Your task to perform on an android device: Go to location settings Image 0: 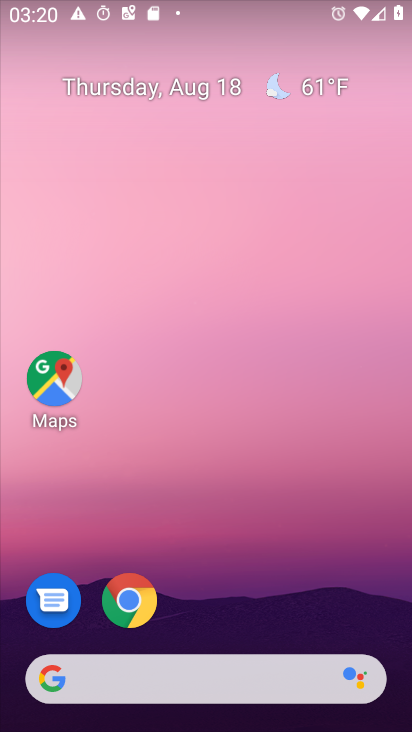
Step 0: press home button
Your task to perform on an android device: Go to location settings Image 1: 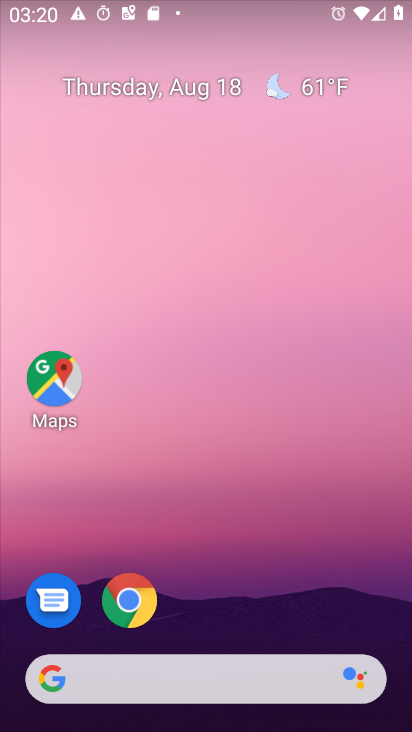
Step 1: drag from (241, 606) to (275, 49)
Your task to perform on an android device: Go to location settings Image 2: 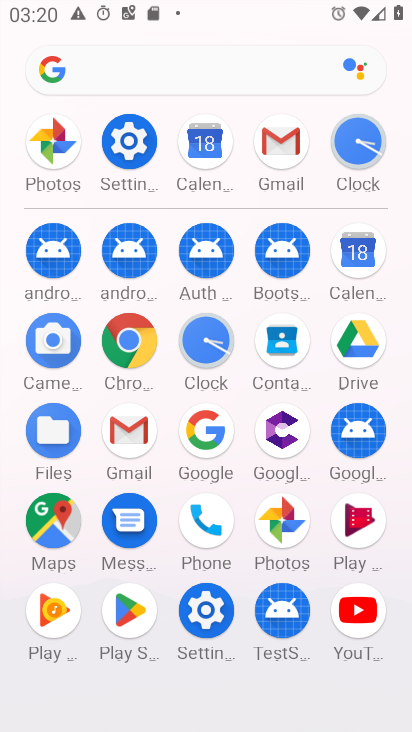
Step 2: click (160, 153)
Your task to perform on an android device: Go to location settings Image 3: 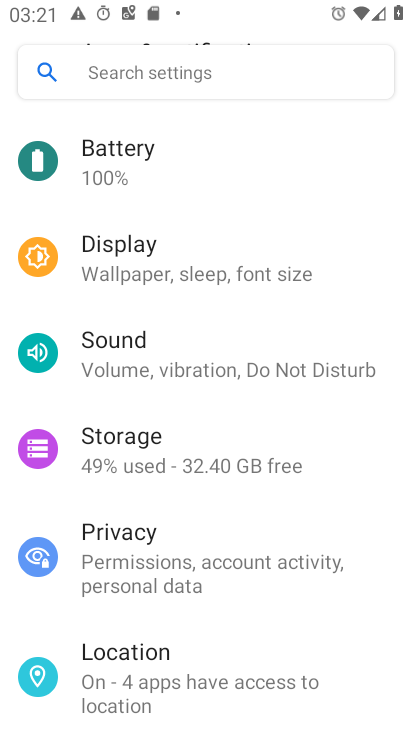
Step 3: click (130, 666)
Your task to perform on an android device: Go to location settings Image 4: 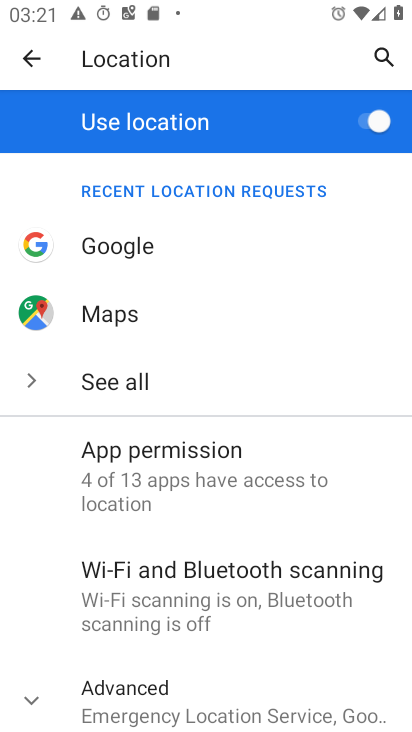
Step 4: task complete